Your task to perform on an android device: all mails in gmail Image 0: 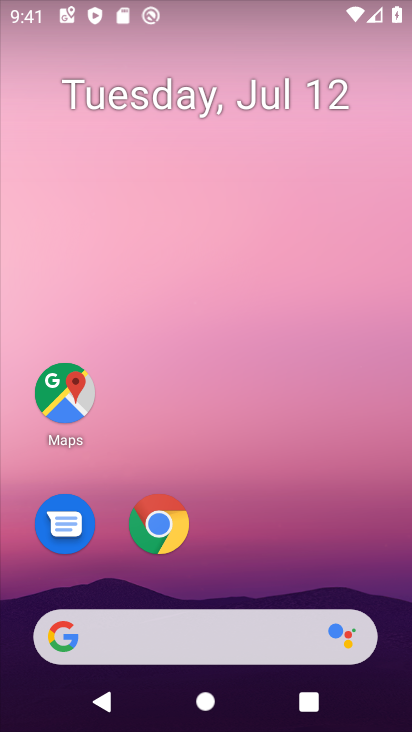
Step 0: drag from (328, 562) to (357, 94)
Your task to perform on an android device: all mails in gmail Image 1: 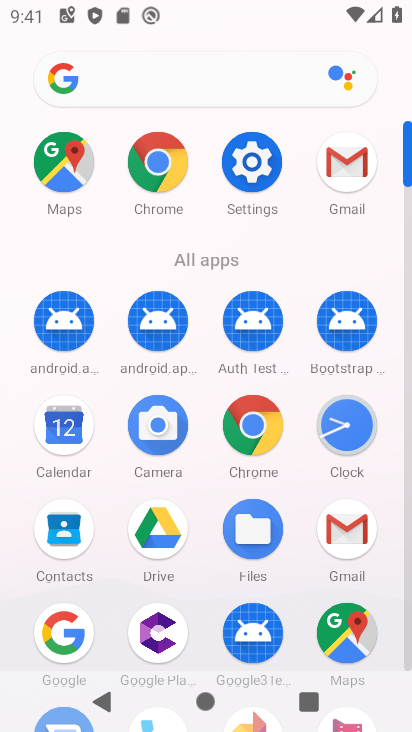
Step 1: click (352, 171)
Your task to perform on an android device: all mails in gmail Image 2: 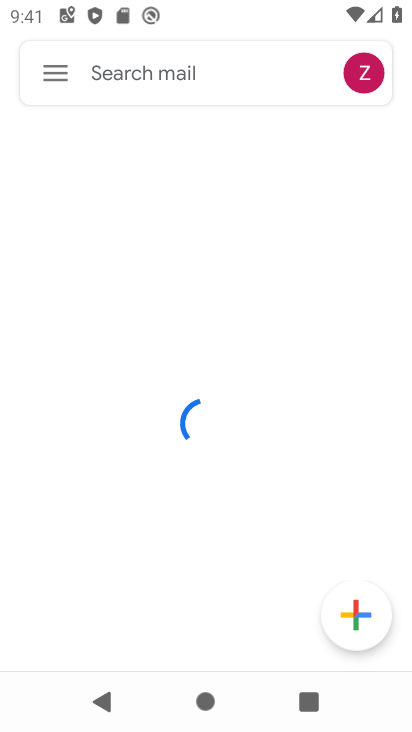
Step 2: click (51, 64)
Your task to perform on an android device: all mails in gmail Image 3: 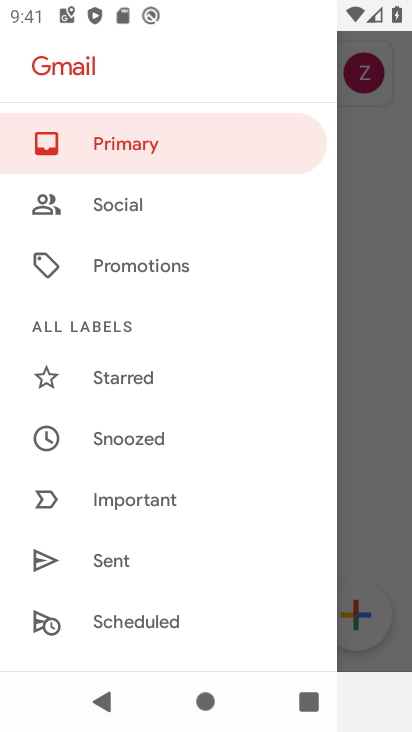
Step 3: drag from (160, 516) to (197, 119)
Your task to perform on an android device: all mails in gmail Image 4: 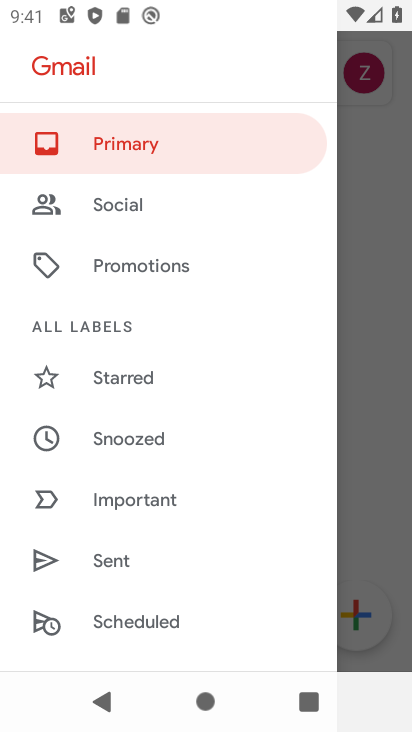
Step 4: drag from (203, 592) to (214, 88)
Your task to perform on an android device: all mails in gmail Image 5: 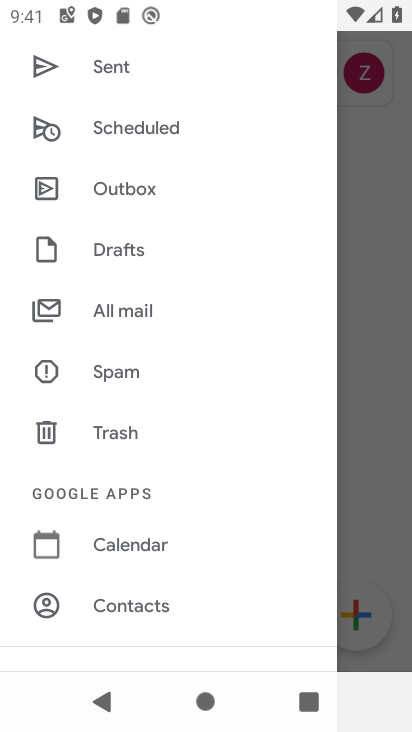
Step 5: click (130, 301)
Your task to perform on an android device: all mails in gmail Image 6: 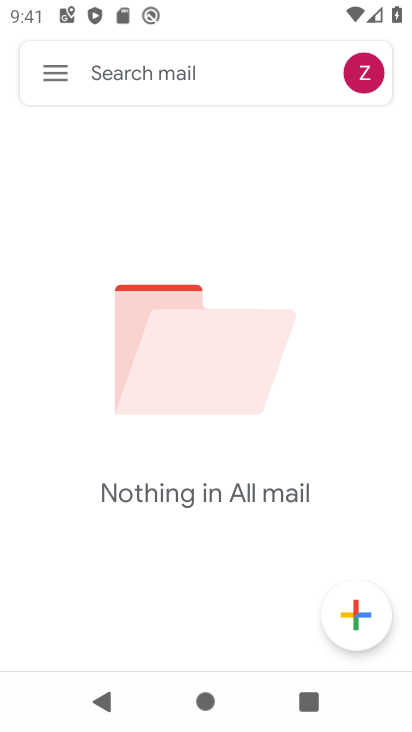
Step 6: click (55, 66)
Your task to perform on an android device: all mails in gmail Image 7: 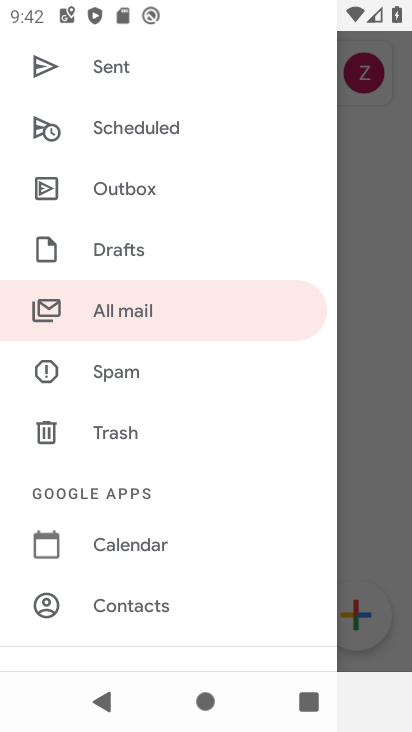
Step 7: task complete